Your task to perform on an android device: turn on sleep mode Image 0: 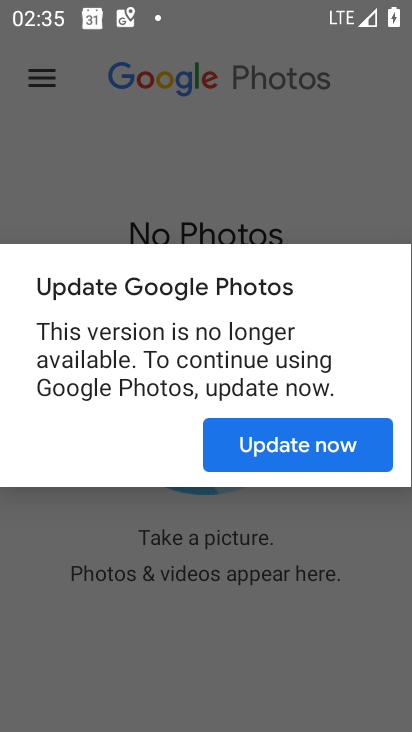
Step 0: press home button
Your task to perform on an android device: turn on sleep mode Image 1: 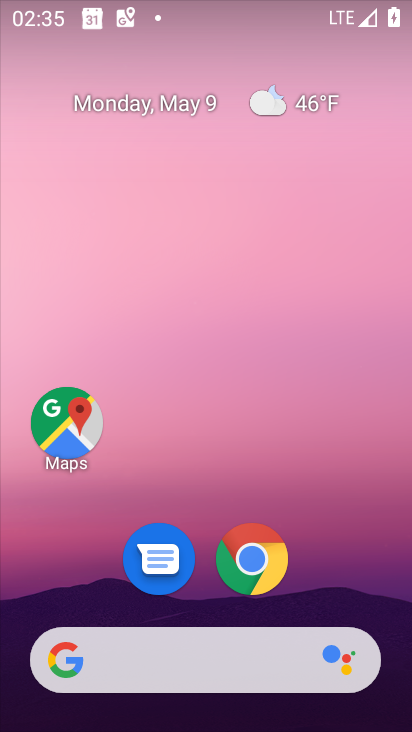
Step 1: drag from (206, 480) to (316, 183)
Your task to perform on an android device: turn on sleep mode Image 2: 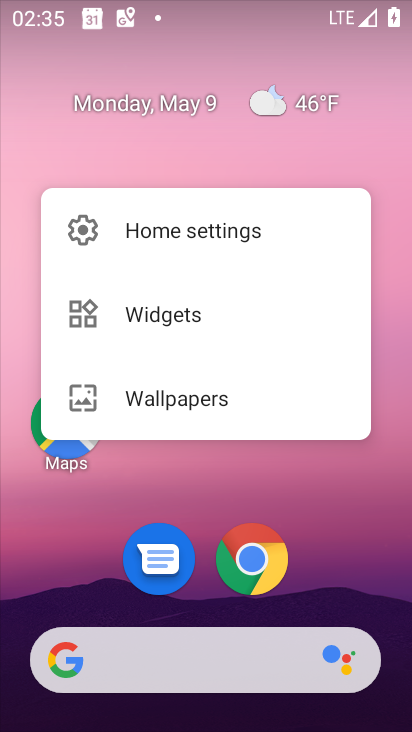
Step 2: drag from (335, 583) to (290, 0)
Your task to perform on an android device: turn on sleep mode Image 3: 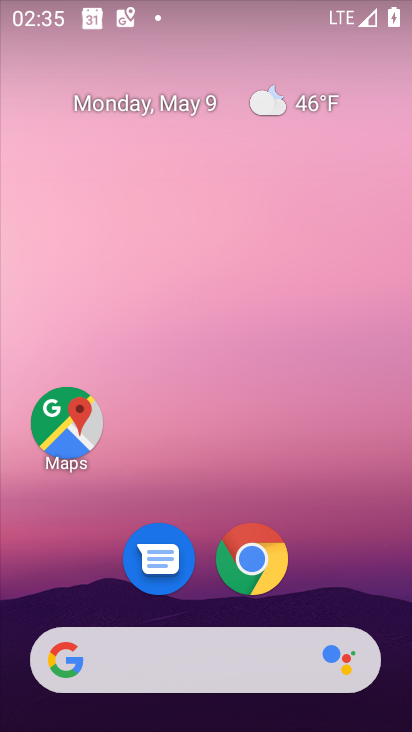
Step 3: drag from (354, 597) to (252, 21)
Your task to perform on an android device: turn on sleep mode Image 4: 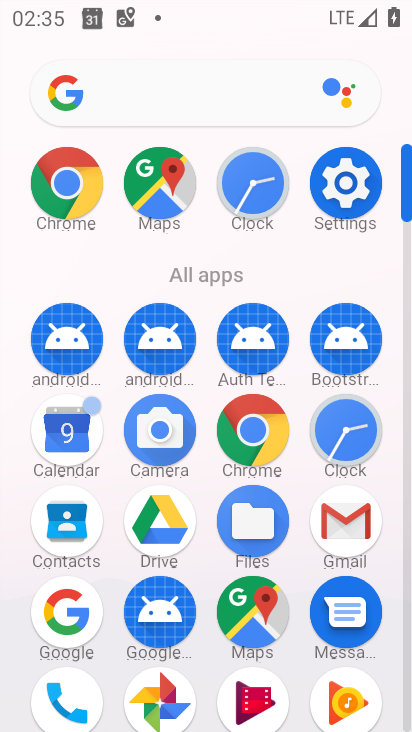
Step 4: click (345, 185)
Your task to perform on an android device: turn on sleep mode Image 5: 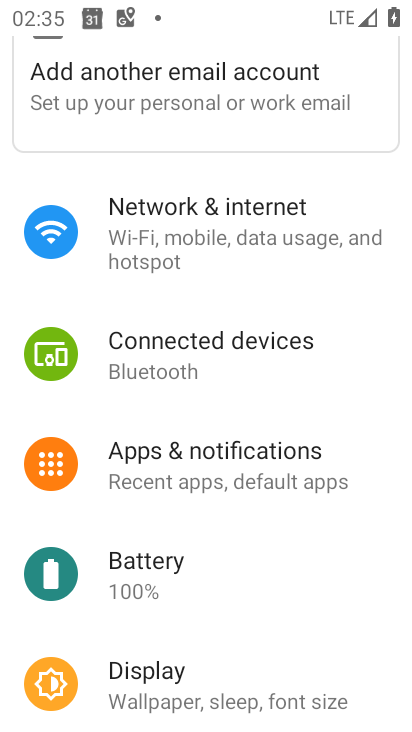
Step 5: drag from (212, 276) to (233, 208)
Your task to perform on an android device: turn on sleep mode Image 6: 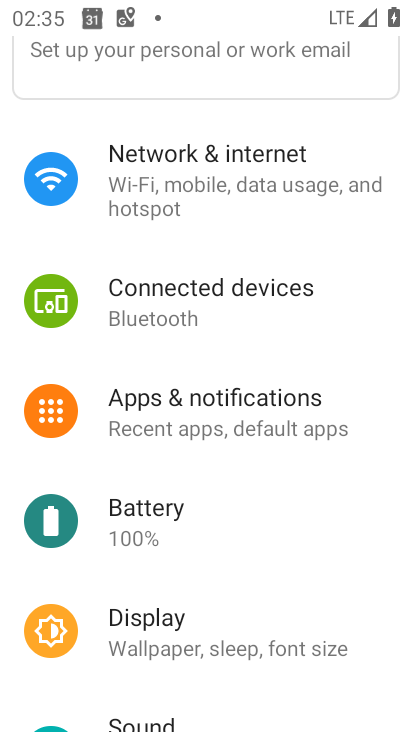
Step 6: drag from (192, 359) to (213, 300)
Your task to perform on an android device: turn on sleep mode Image 7: 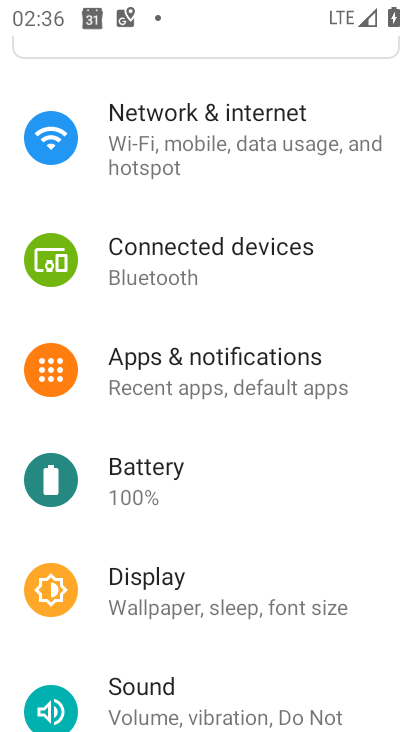
Step 7: drag from (171, 509) to (205, 415)
Your task to perform on an android device: turn on sleep mode Image 8: 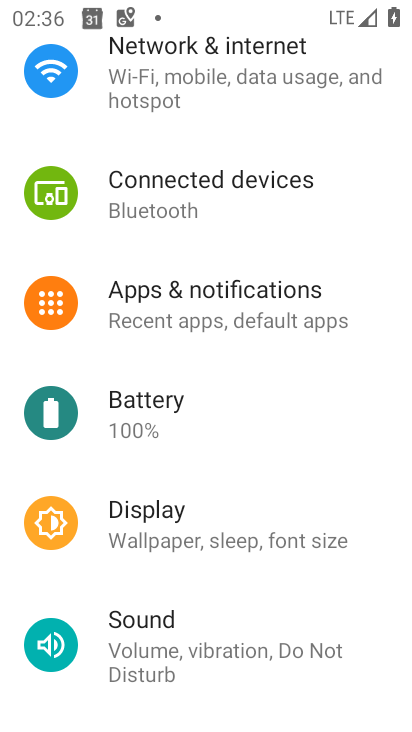
Step 8: click (205, 552)
Your task to perform on an android device: turn on sleep mode Image 9: 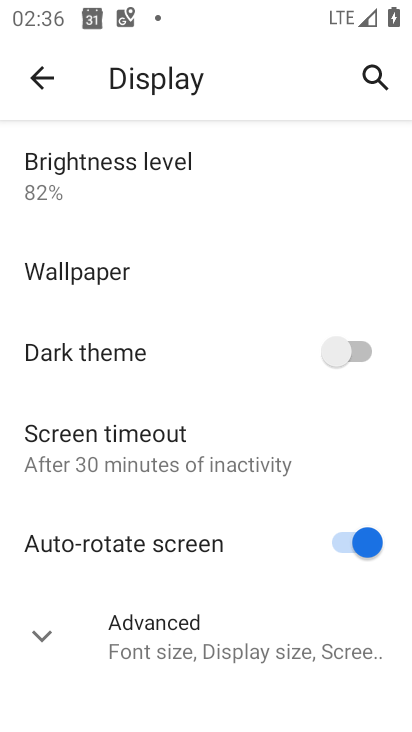
Step 9: click (173, 462)
Your task to perform on an android device: turn on sleep mode Image 10: 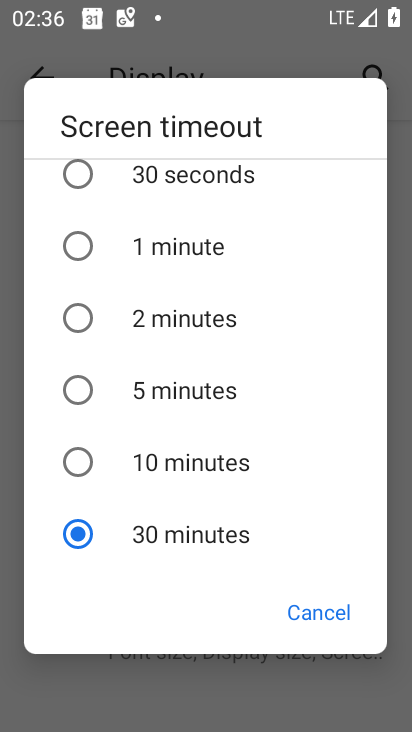
Step 10: drag from (194, 340) to (209, 496)
Your task to perform on an android device: turn on sleep mode Image 11: 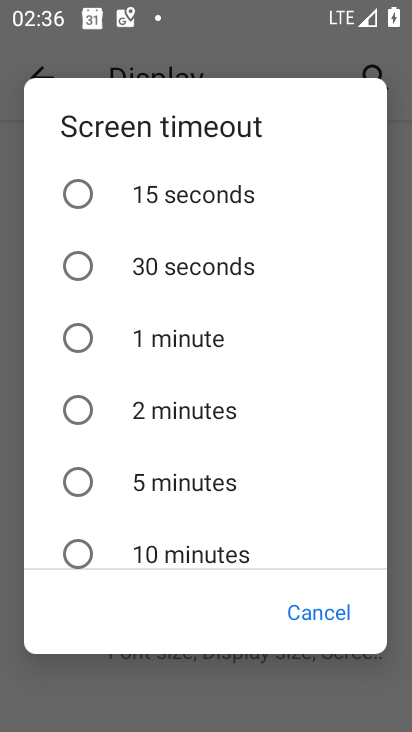
Step 11: drag from (209, 295) to (179, 471)
Your task to perform on an android device: turn on sleep mode Image 12: 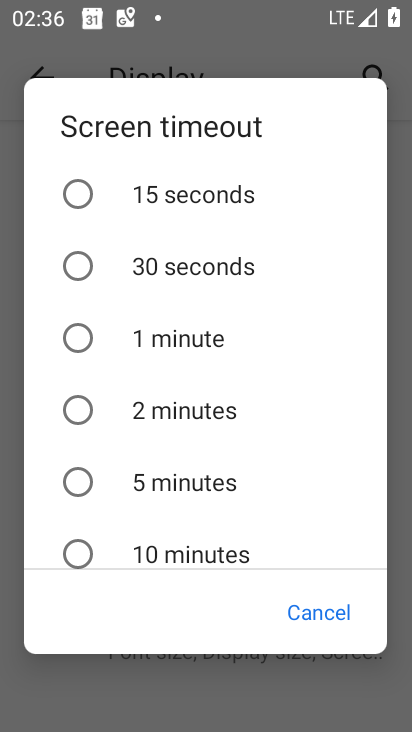
Step 12: click (333, 612)
Your task to perform on an android device: turn on sleep mode Image 13: 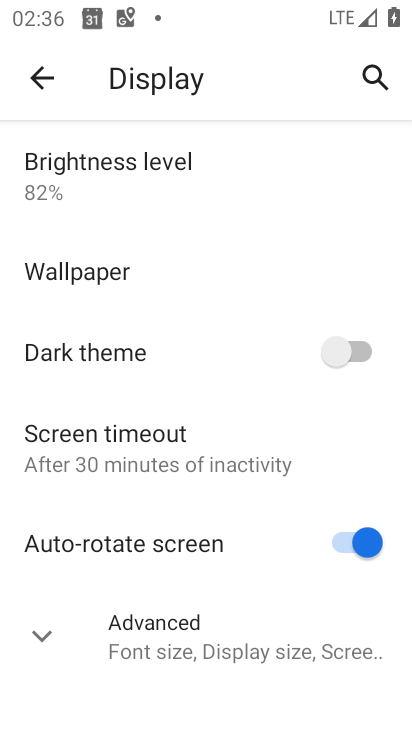
Step 13: click (149, 659)
Your task to perform on an android device: turn on sleep mode Image 14: 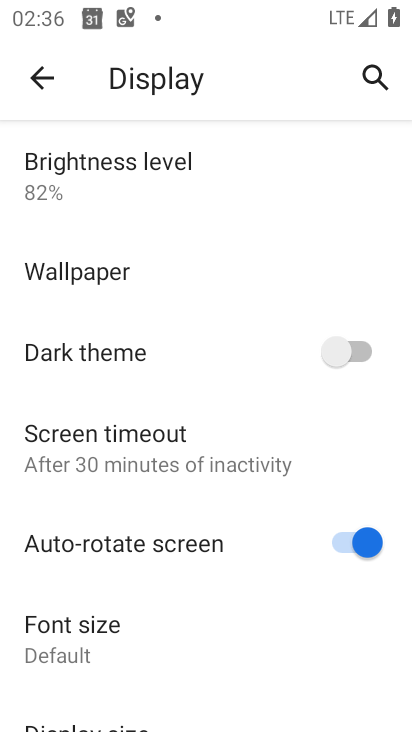
Step 14: task complete